Your task to perform on an android device: Open notification settings Image 0: 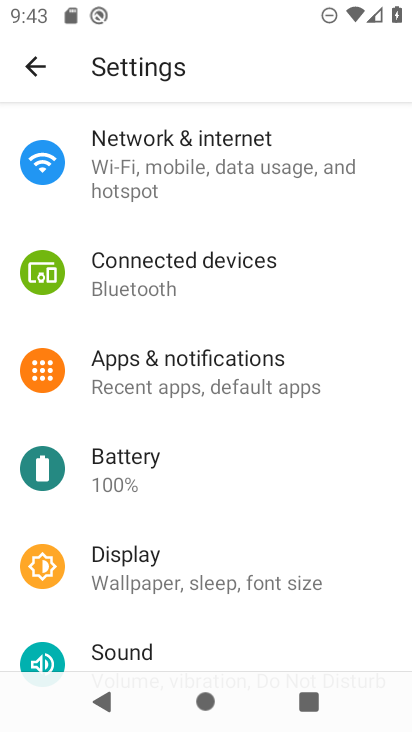
Step 0: click (268, 374)
Your task to perform on an android device: Open notification settings Image 1: 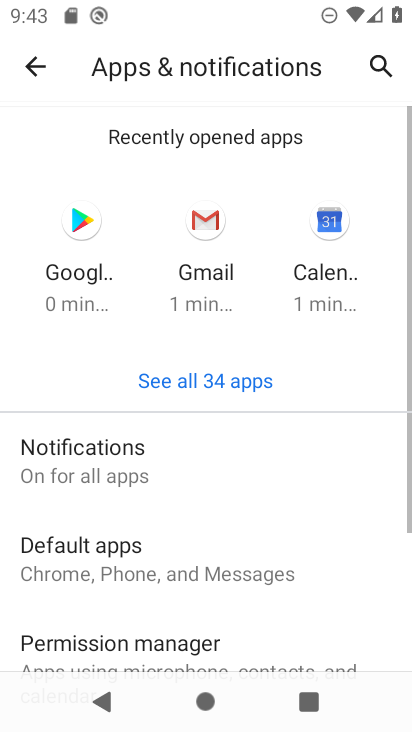
Step 1: click (181, 458)
Your task to perform on an android device: Open notification settings Image 2: 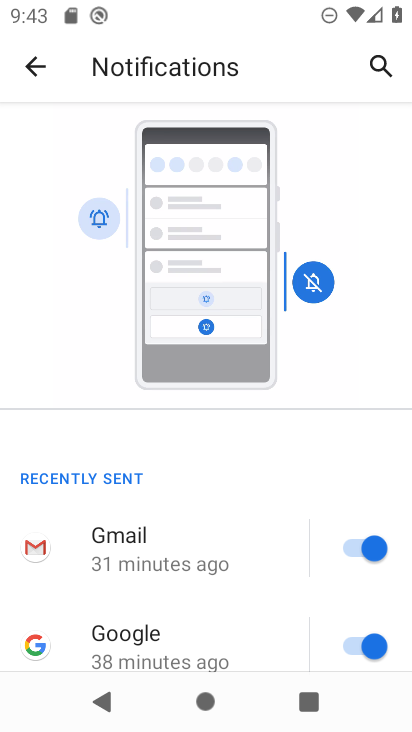
Step 2: task complete